Your task to perform on an android device: turn off airplane mode Image 0: 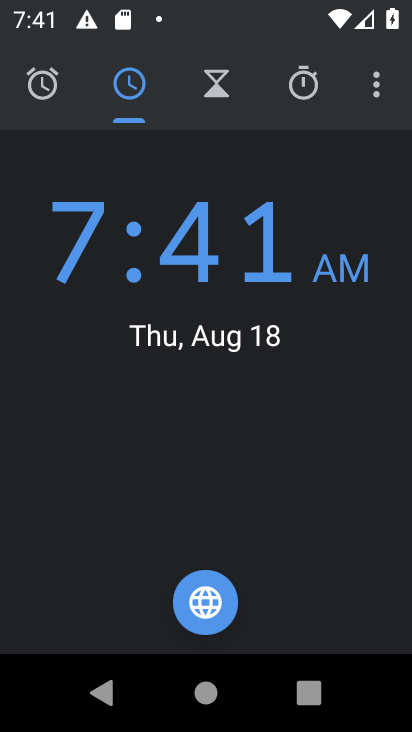
Step 0: task complete